Your task to perform on an android device: change notification settings in the gmail app Image 0: 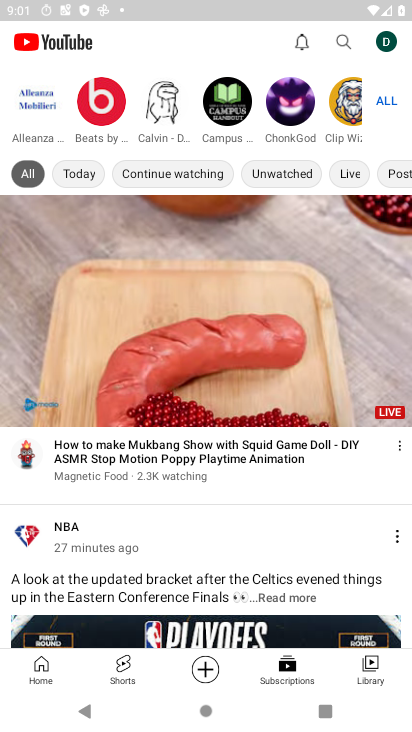
Step 0: press home button
Your task to perform on an android device: change notification settings in the gmail app Image 1: 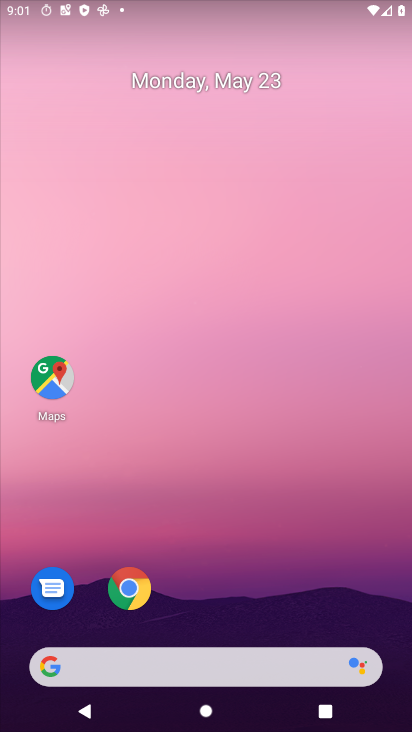
Step 1: drag from (402, 606) to (315, 169)
Your task to perform on an android device: change notification settings in the gmail app Image 2: 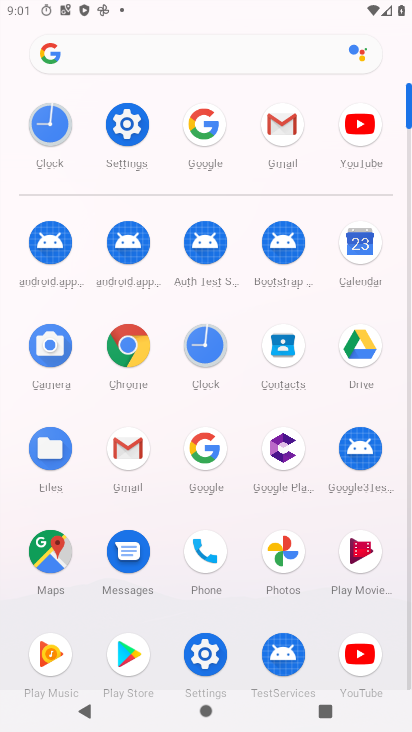
Step 2: click (140, 438)
Your task to perform on an android device: change notification settings in the gmail app Image 3: 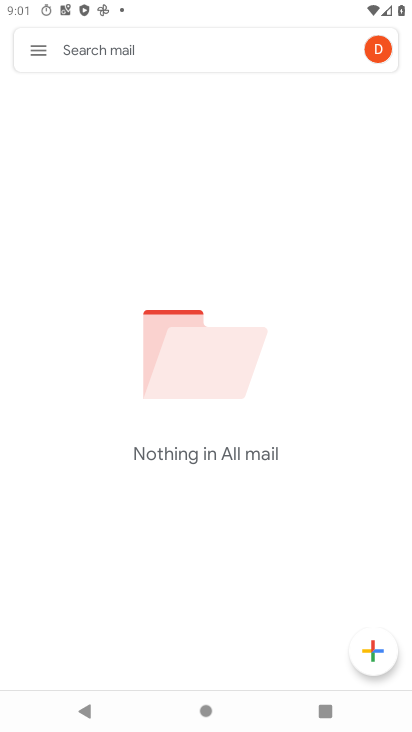
Step 3: click (37, 50)
Your task to perform on an android device: change notification settings in the gmail app Image 4: 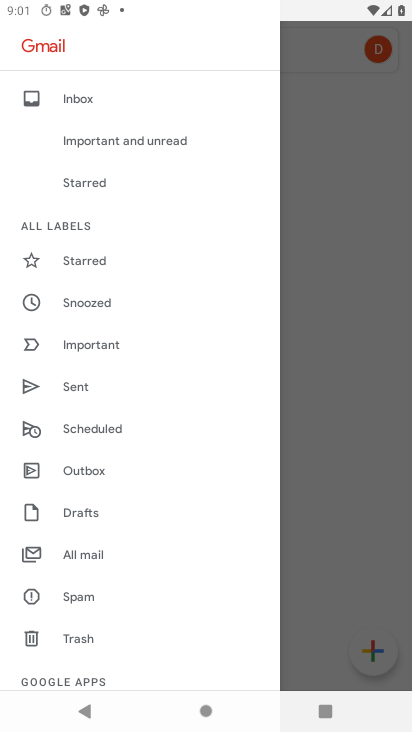
Step 4: drag from (190, 641) to (205, 403)
Your task to perform on an android device: change notification settings in the gmail app Image 5: 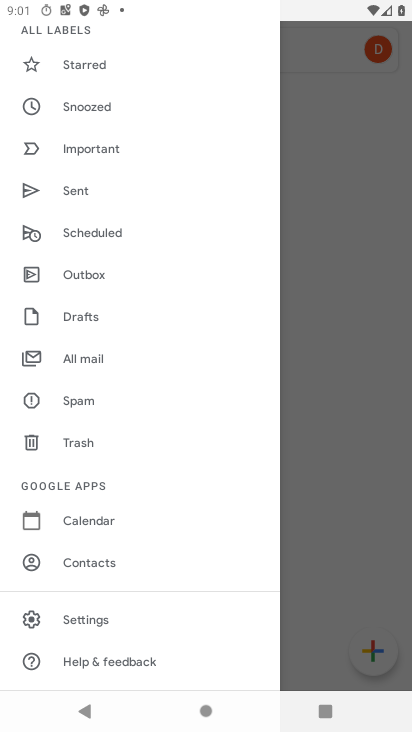
Step 5: click (61, 617)
Your task to perform on an android device: change notification settings in the gmail app Image 6: 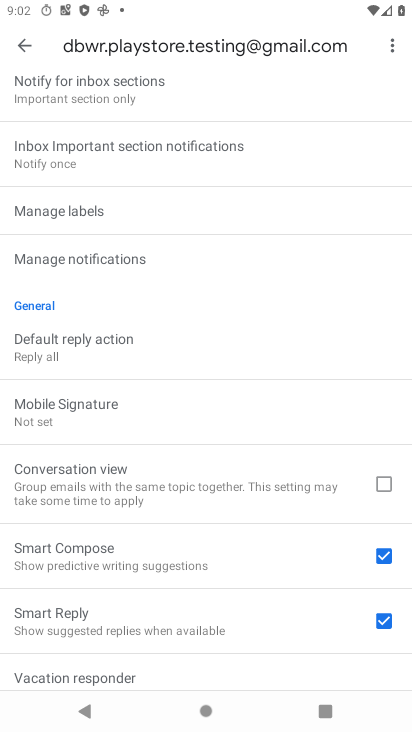
Step 6: click (19, 42)
Your task to perform on an android device: change notification settings in the gmail app Image 7: 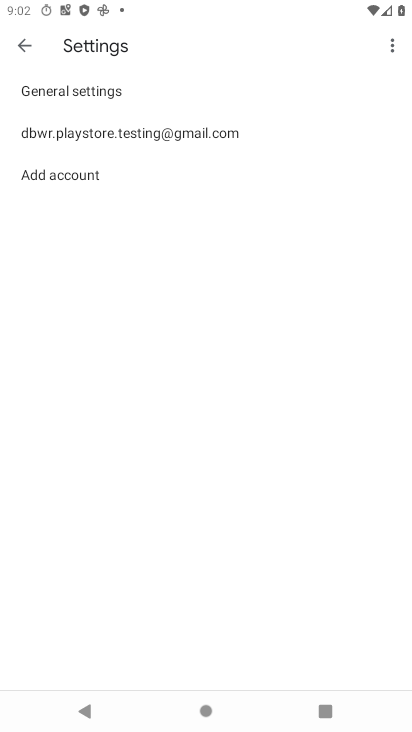
Step 7: click (75, 78)
Your task to perform on an android device: change notification settings in the gmail app Image 8: 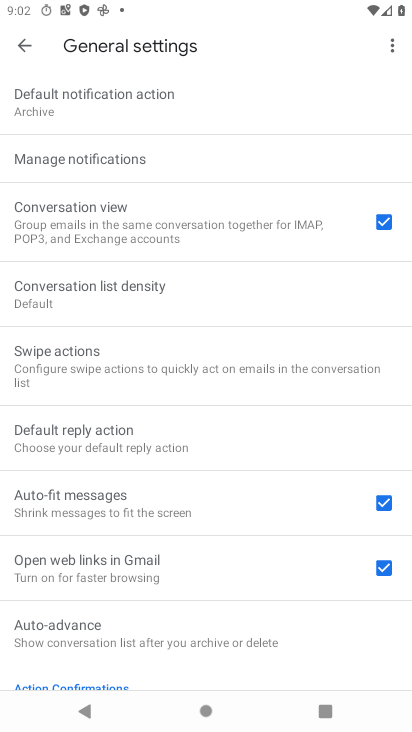
Step 8: click (156, 153)
Your task to perform on an android device: change notification settings in the gmail app Image 9: 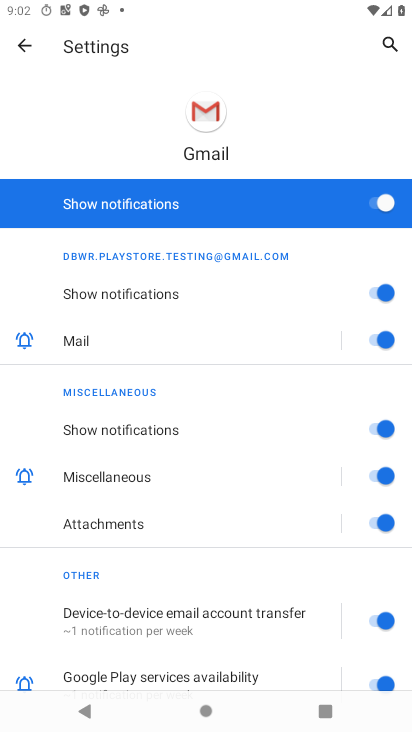
Step 9: click (370, 197)
Your task to perform on an android device: change notification settings in the gmail app Image 10: 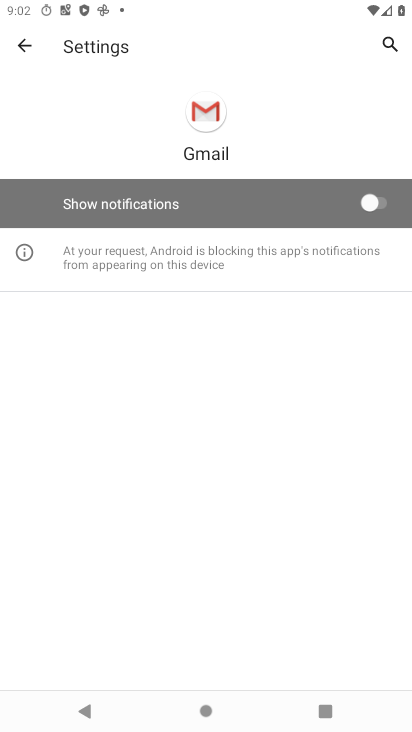
Step 10: task complete